Your task to perform on an android device: What's the weather going to be tomorrow? Image 0: 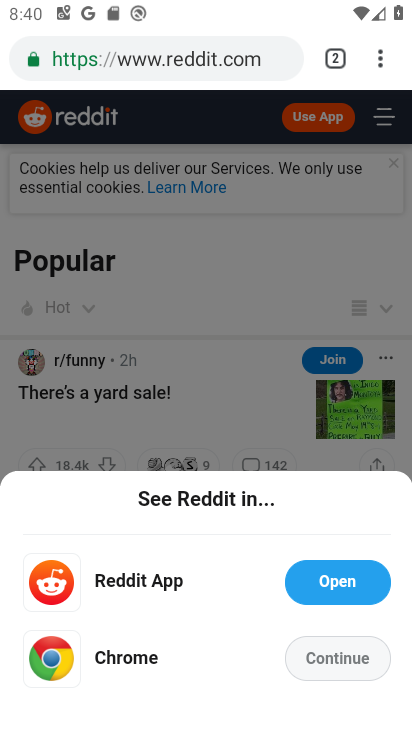
Step 0: press back button
Your task to perform on an android device: What's the weather going to be tomorrow? Image 1: 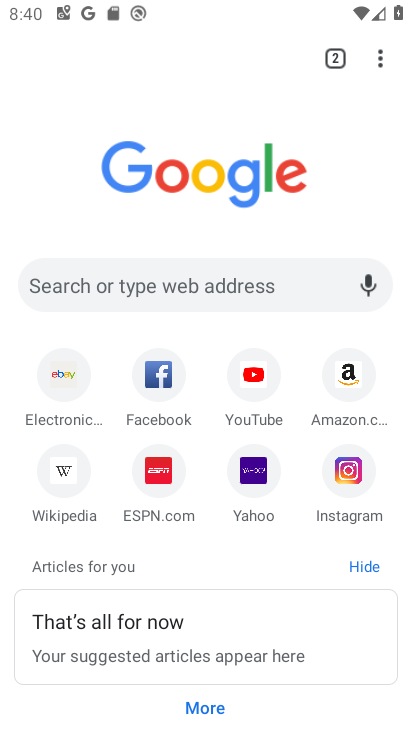
Step 1: press home button
Your task to perform on an android device: What's the weather going to be tomorrow? Image 2: 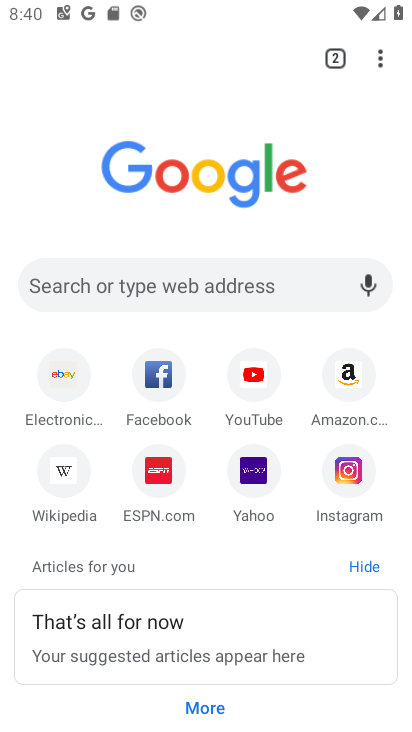
Step 2: press home button
Your task to perform on an android device: What's the weather going to be tomorrow? Image 3: 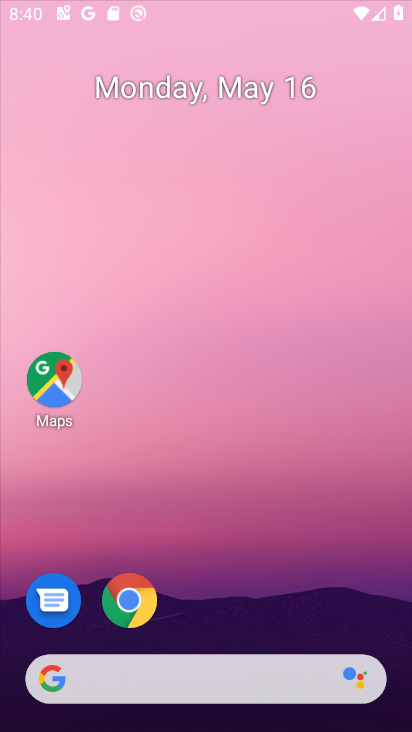
Step 3: press home button
Your task to perform on an android device: What's the weather going to be tomorrow? Image 4: 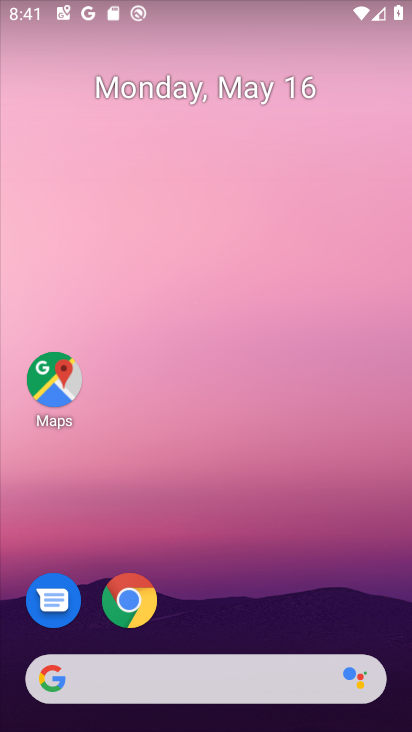
Step 4: drag from (18, 126) to (409, 287)
Your task to perform on an android device: What's the weather going to be tomorrow? Image 5: 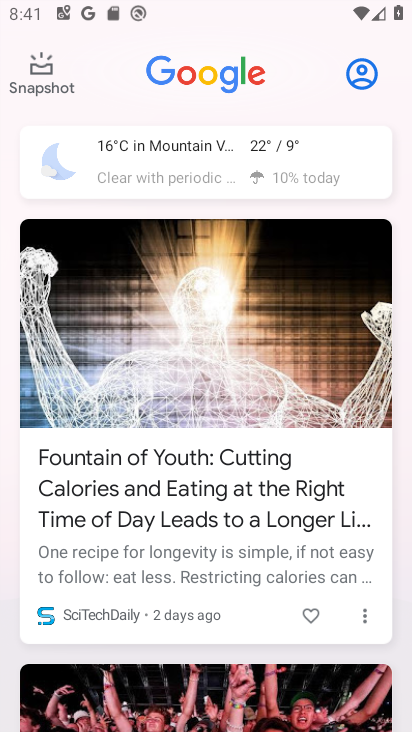
Step 5: click (180, 192)
Your task to perform on an android device: What's the weather going to be tomorrow? Image 6: 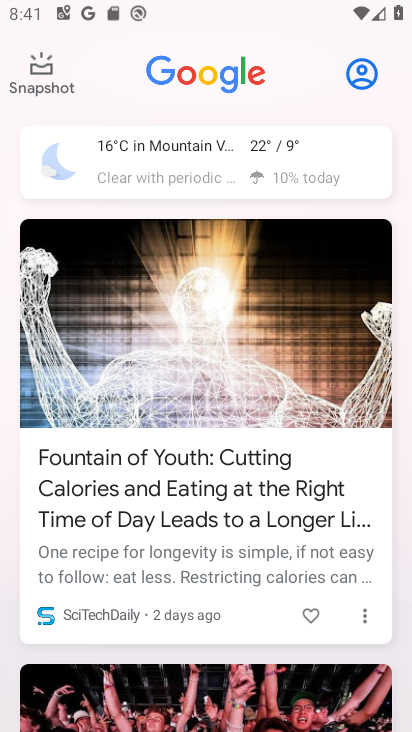
Step 6: click (201, 167)
Your task to perform on an android device: What's the weather going to be tomorrow? Image 7: 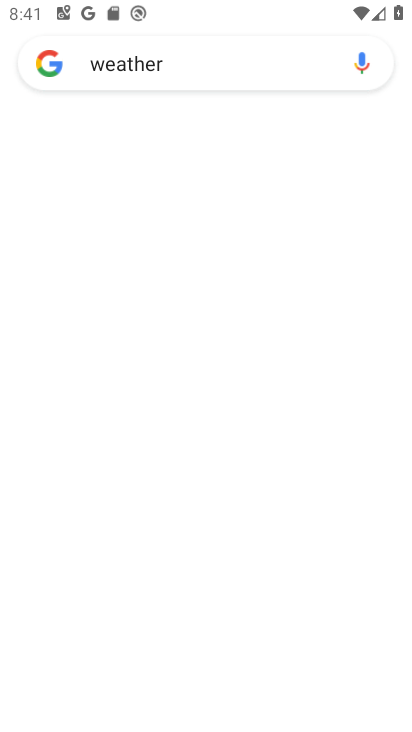
Step 7: click (212, 166)
Your task to perform on an android device: What's the weather going to be tomorrow? Image 8: 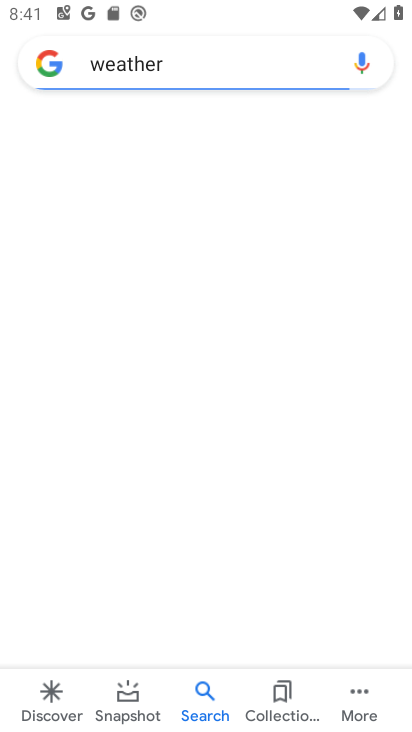
Step 8: click (212, 166)
Your task to perform on an android device: What's the weather going to be tomorrow? Image 9: 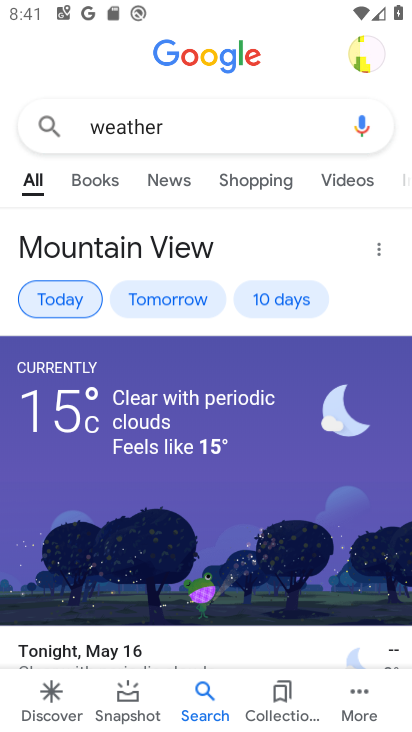
Step 9: task complete